Your task to perform on an android device: Turn off the flashlight Image 0: 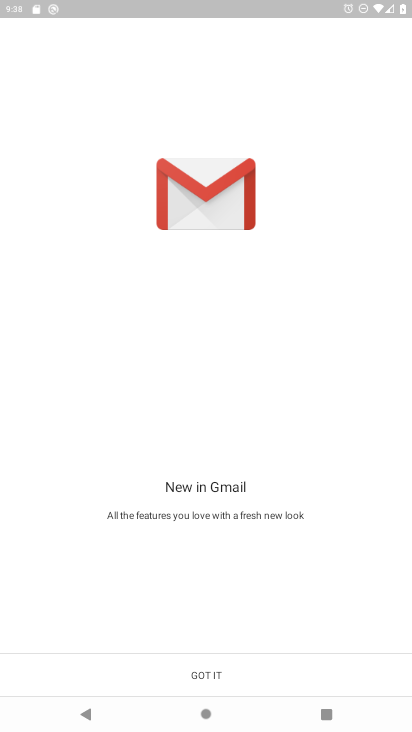
Step 0: click (233, 677)
Your task to perform on an android device: Turn off the flashlight Image 1: 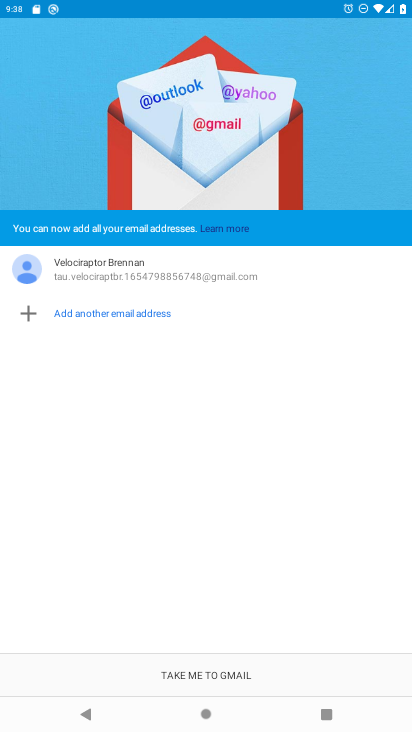
Step 1: task complete